Your task to perform on an android device: Go to battery settings Image 0: 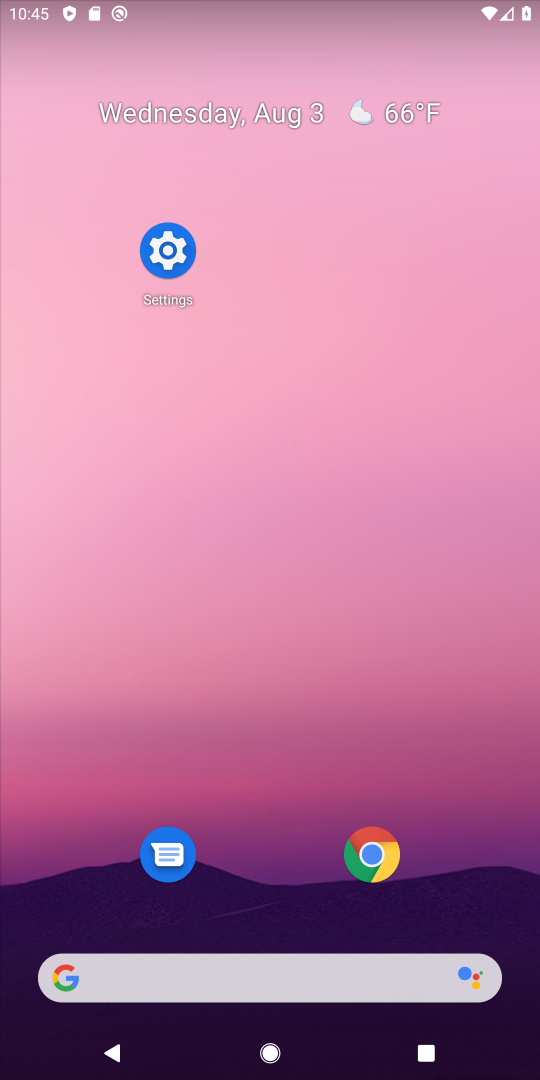
Step 0: click (160, 255)
Your task to perform on an android device: Go to battery settings Image 1: 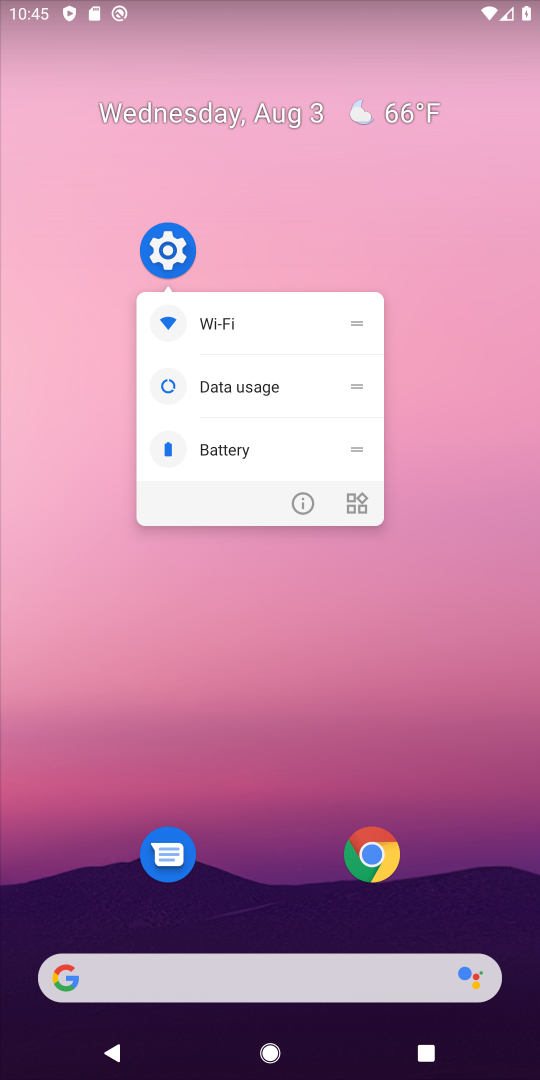
Step 1: click (166, 255)
Your task to perform on an android device: Go to battery settings Image 2: 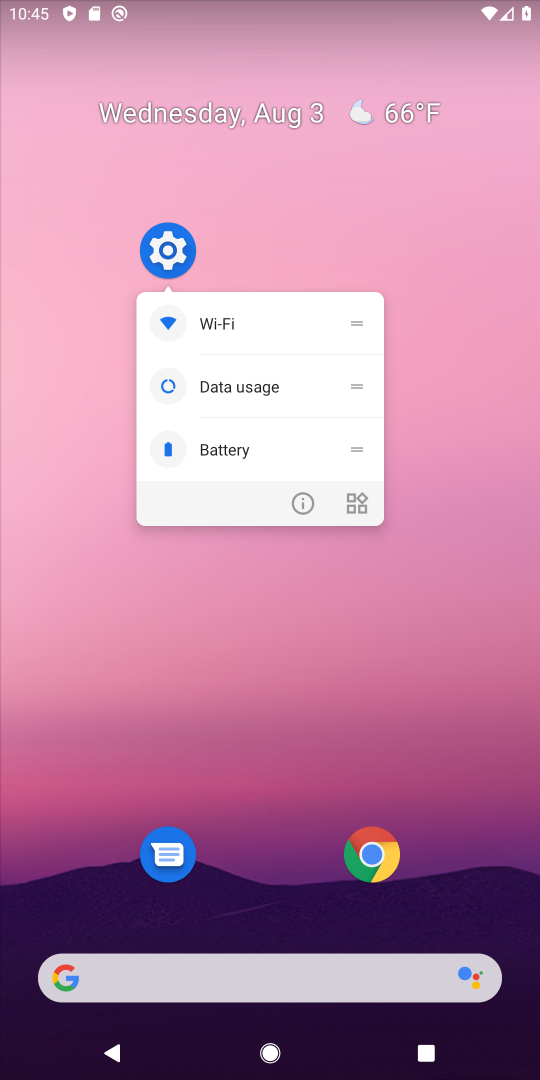
Step 2: click (160, 224)
Your task to perform on an android device: Go to battery settings Image 3: 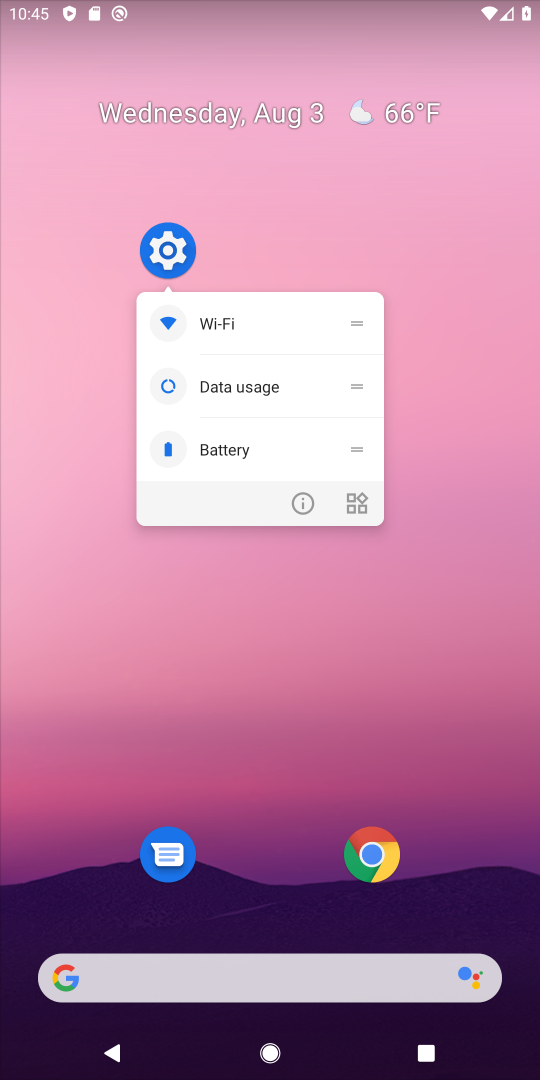
Step 3: click (170, 235)
Your task to perform on an android device: Go to battery settings Image 4: 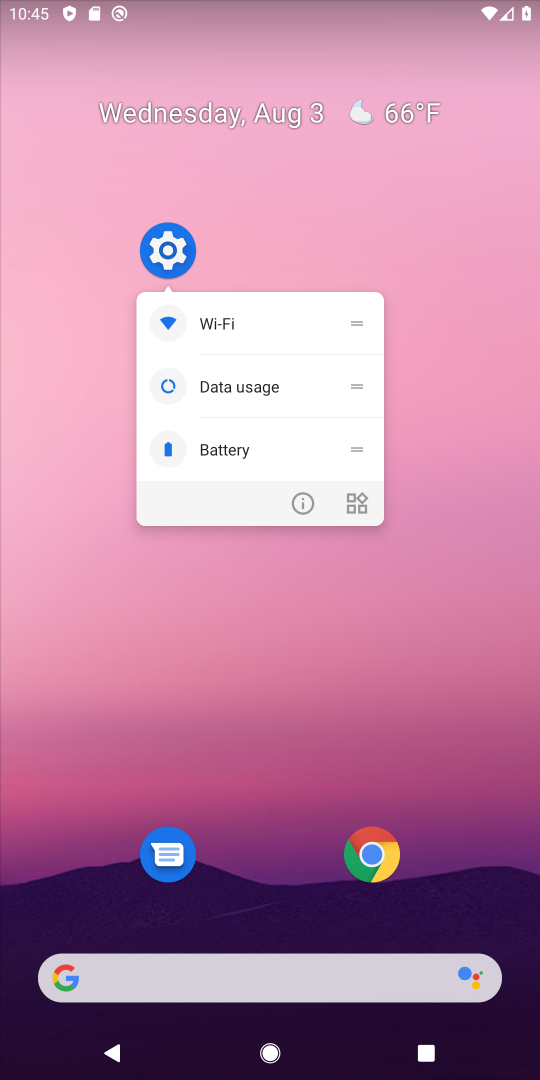
Step 4: click (156, 244)
Your task to perform on an android device: Go to battery settings Image 5: 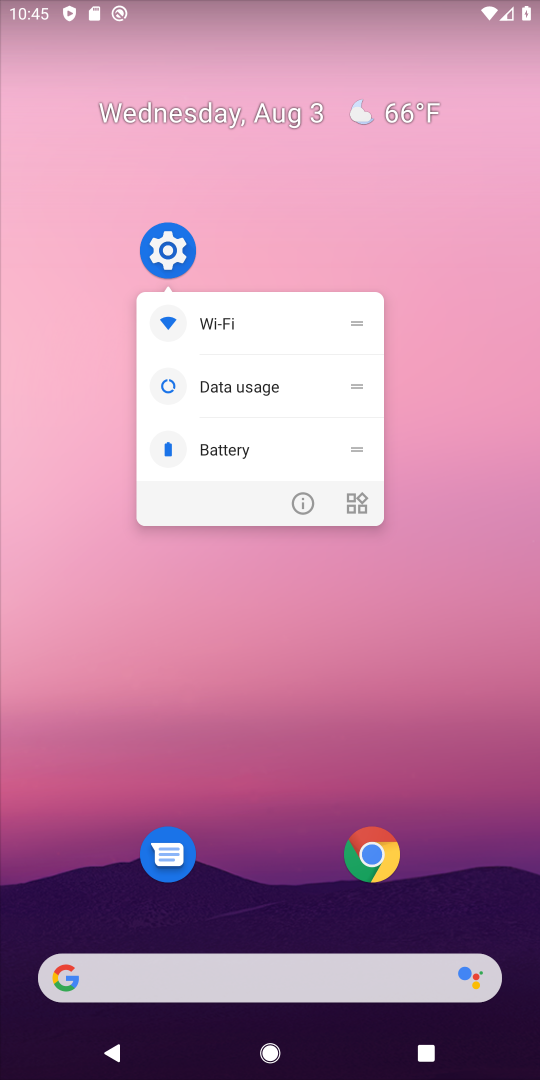
Step 5: click (156, 244)
Your task to perform on an android device: Go to battery settings Image 6: 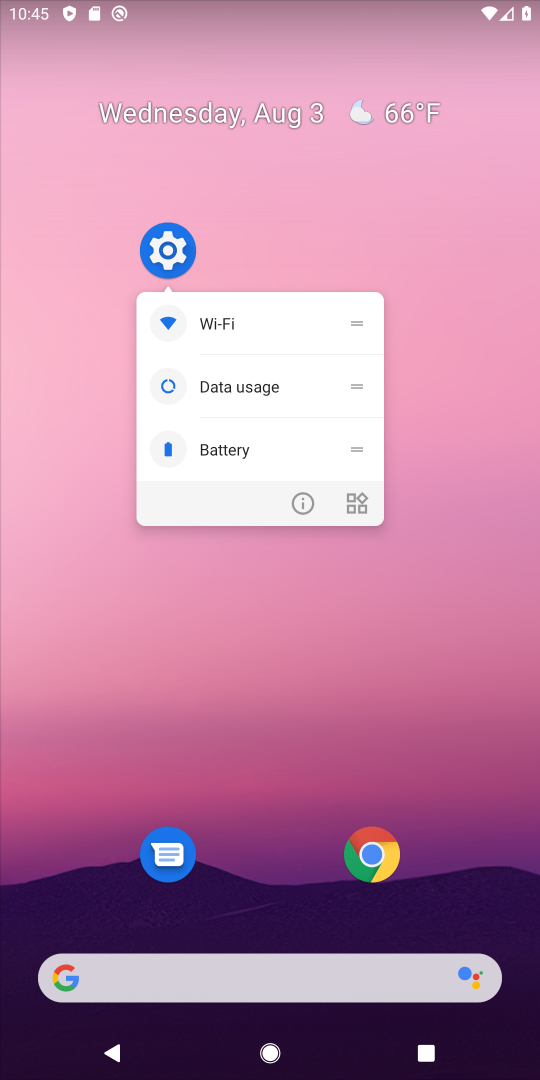
Step 6: click (156, 271)
Your task to perform on an android device: Go to battery settings Image 7: 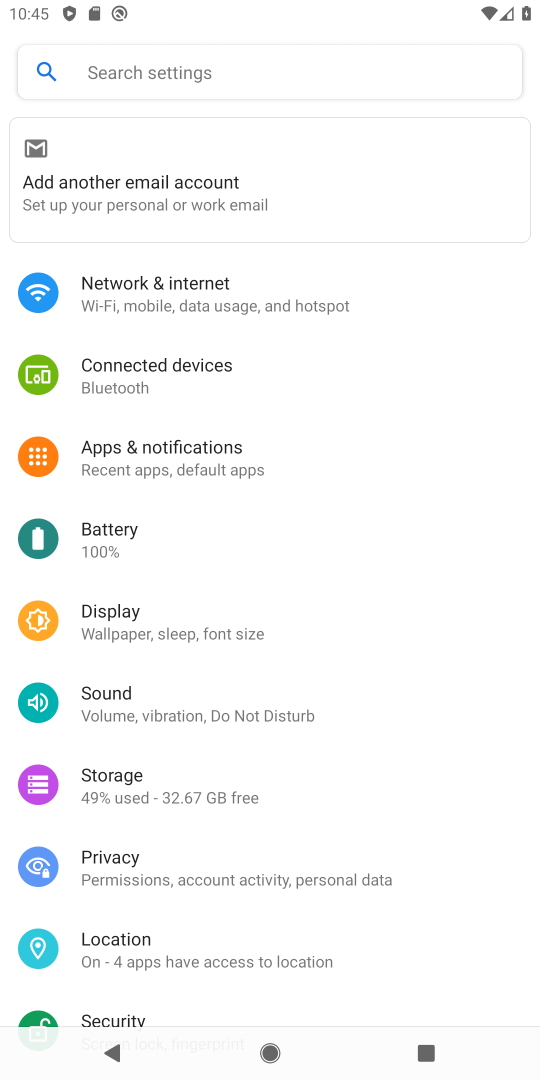
Step 7: drag from (242, 764) to (335, 327)
Your task to perform on an android device: Go to battery settings Image 8: 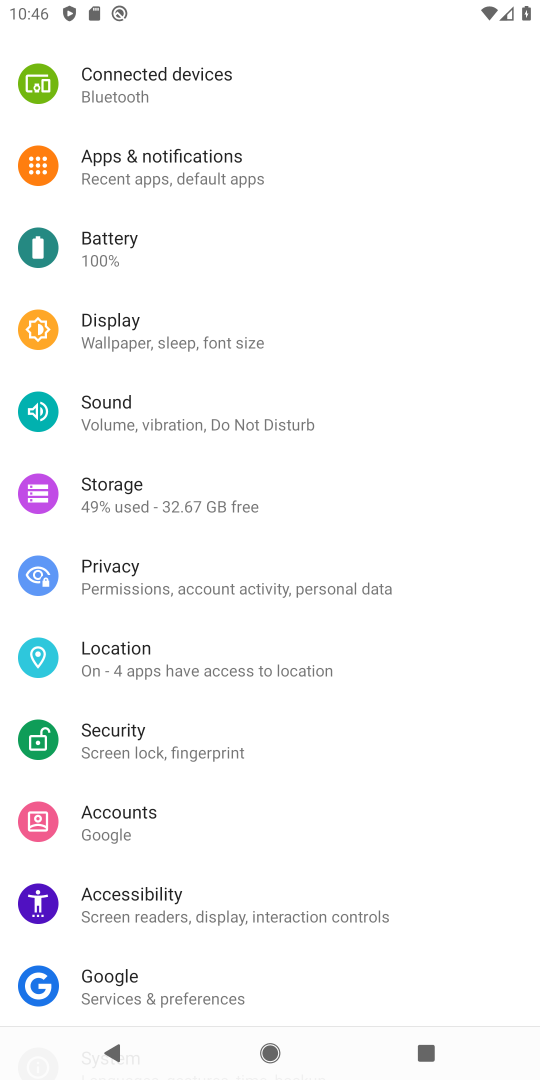
Step 8: drag from (283, 853) to (330, 715)
Your task to perform on an android device: Go to battery settings Image 9: 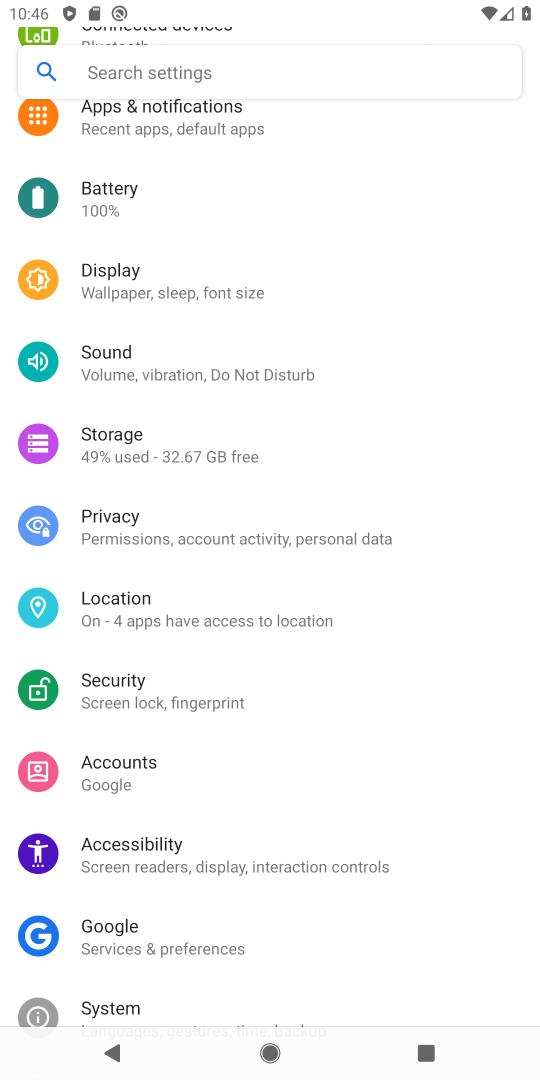
Step 9: click (162, 208)
Your task to perform on an android device: Go to battery settings Image 10: 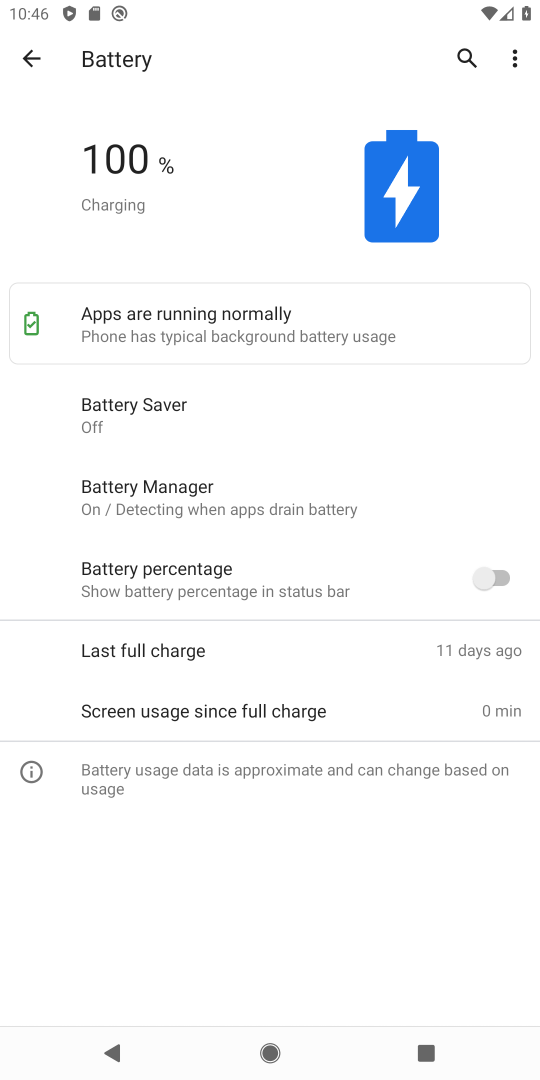
Step 10: task complete